Your task to perform on an android device: change keyboard looks Image 0: 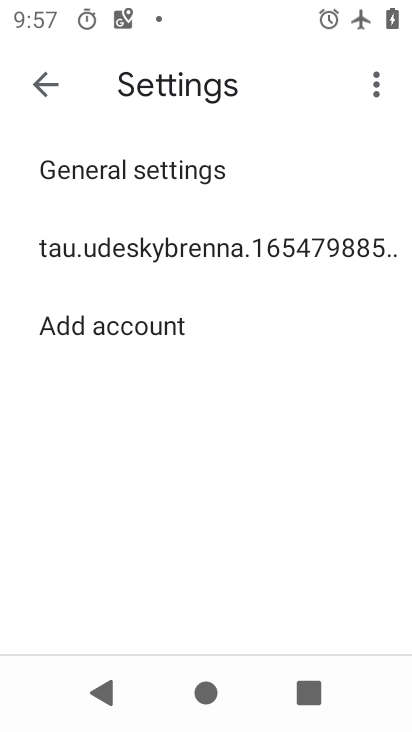
Step 0: press home button
Your task to perform on an android device: change keyboard looks Image 1: 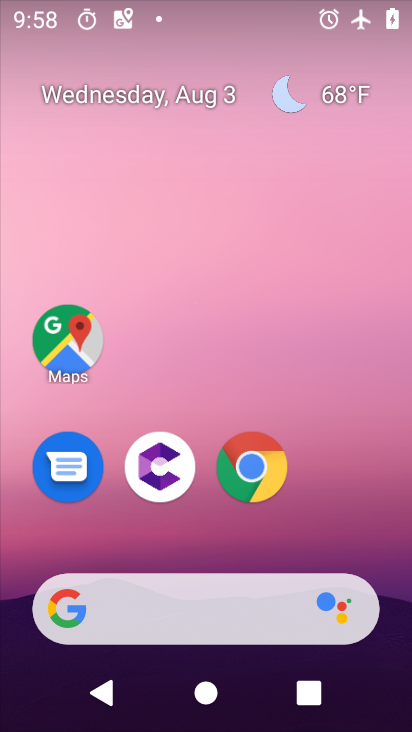
Step 1: drag from (323, 493) to (244, 35)
Your task to perform on an android device: change keyboard looks Image 2: 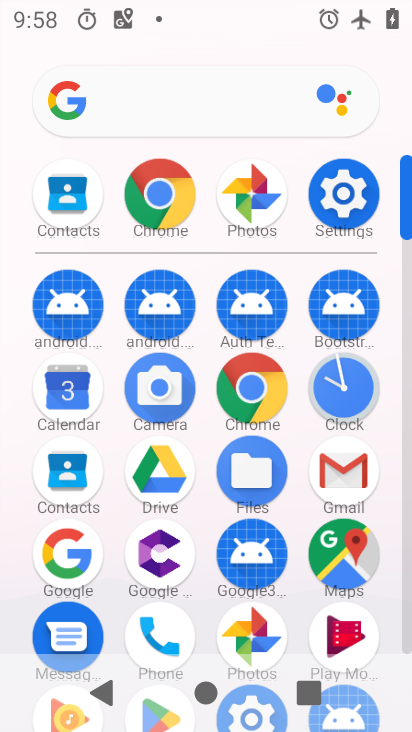
Step 2: click (355, 189)
Your task to perform on an android device: change keyboard looks Image 3: 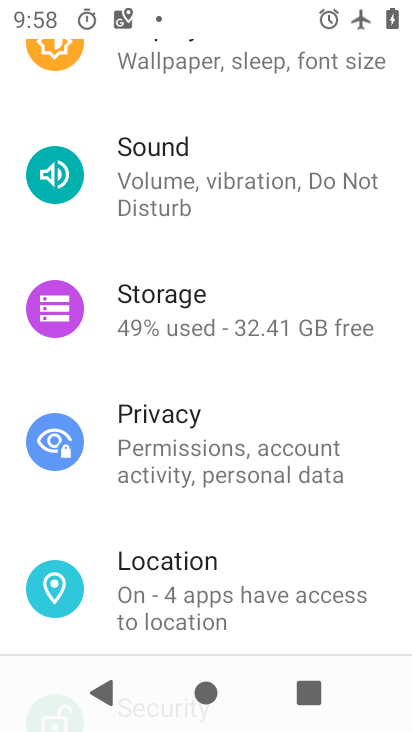
Step 3: drag from (278, 168) to (242, 549)
Your task to perform on an android device: change keyboard looks Image 4: 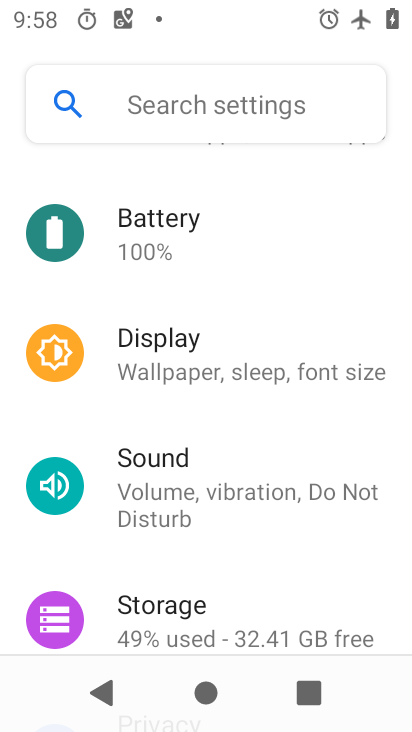
Step 4: drag from (245, 208) to (301, 639)
Your task to perform on an android device: change keyboard looks Image 5: 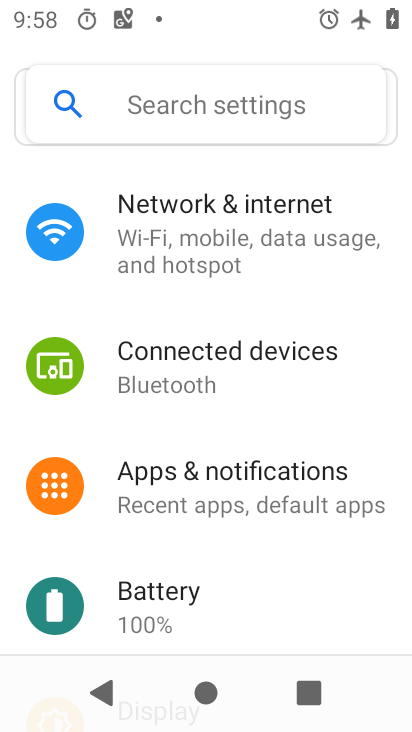
Step 5: drag from (290, 594) to (310, 157)
Your task to perform on an android device: change keyboard looks Image 6: 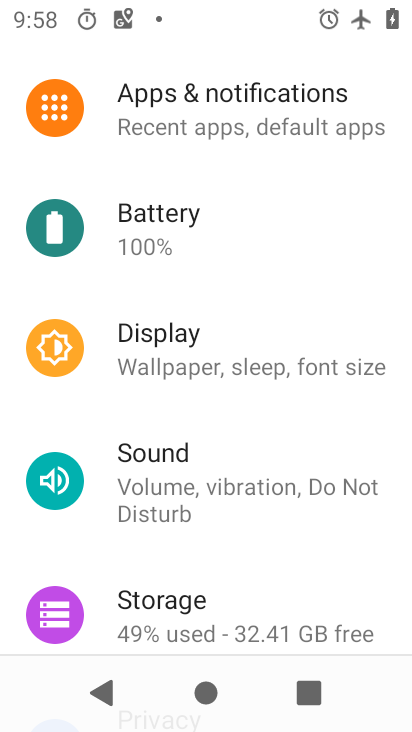
Step 6: drag from (234, 502) to (280, 190)
Your task to perform on an android device: change keyboard looks Image 7: 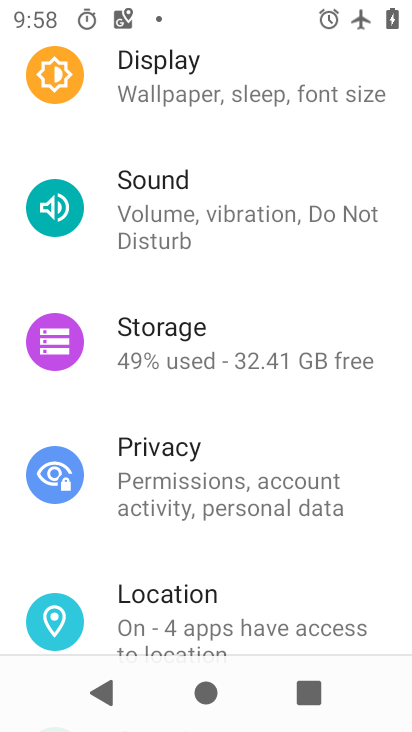
Step 7: drag from (284, 600) to (313, 260)
Your task to perform on an android device: change keyboard looks Image 8: 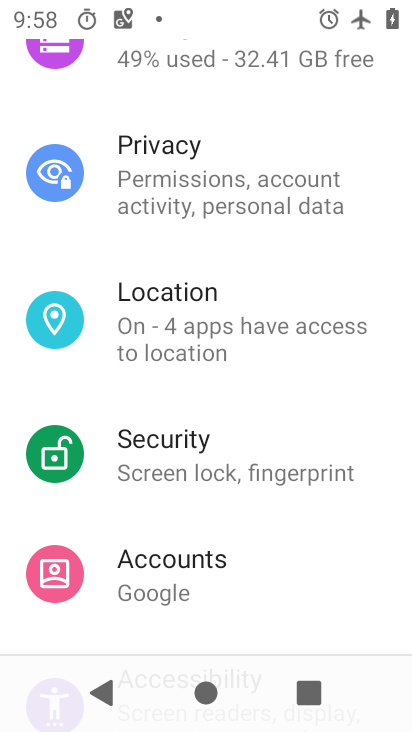
Step 8: drag from (286, 594) to (276, 170)
Your task to perform on an android device: change keyboard looks Image 9: 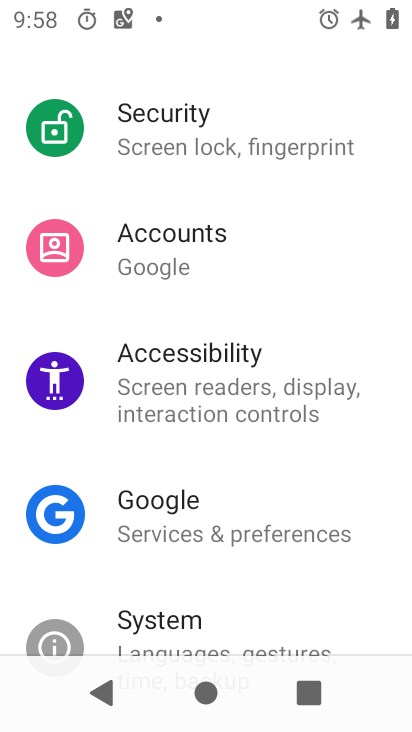
Step 9: drag from (314, 627) to (326, 151)
Your task to perform on an android device: change keyboard looks Image 10: 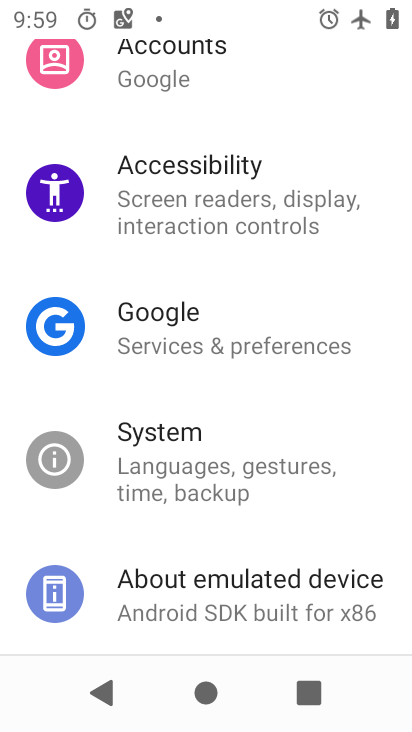
Step 10: click (179, 475)
Your task to perform on an android device: change keyboard looks Image 11: 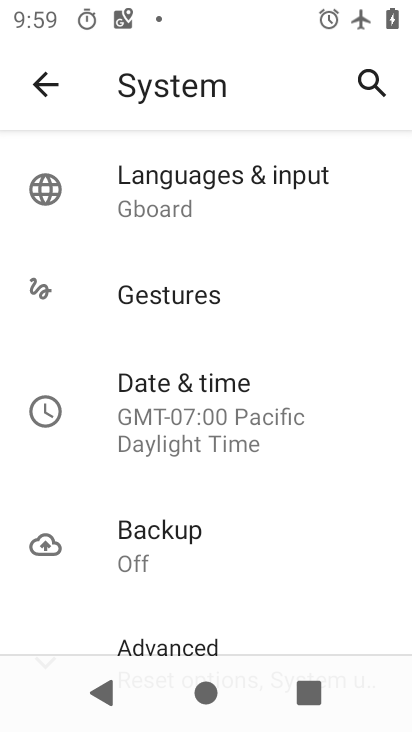
Step 11: click (208, 178)
Your task to perform on an android device: change keyboard looks Image 12: 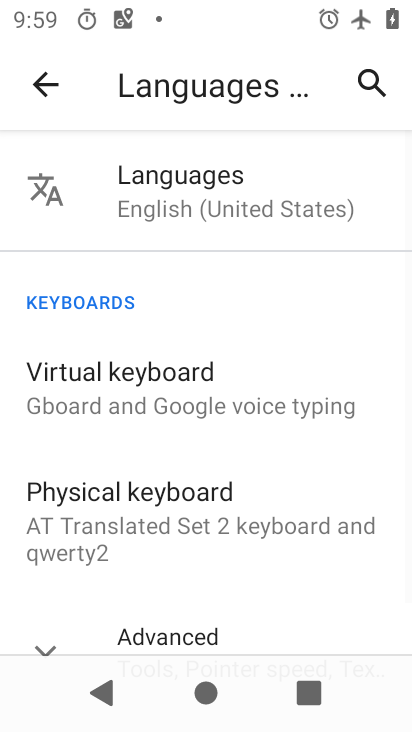
Step 12: click (197, 408)
Your task to perform on an android device: change keyboard looks Image 13: 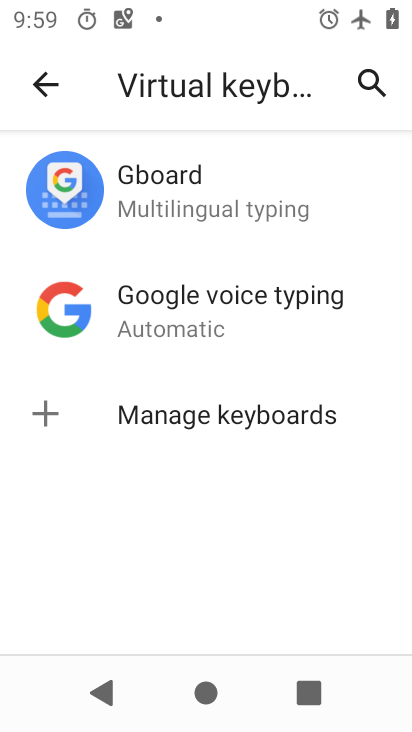
Step 13: click (196, 199)
Your task to perform on an android device: change keyboard looks Image 14: 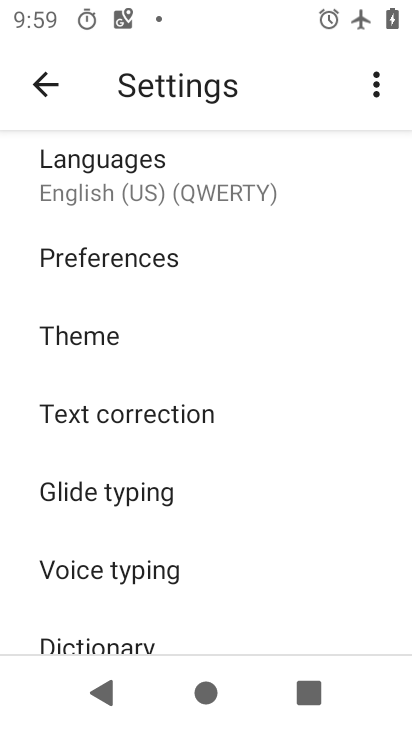
Step 14: click (98, 347)
Your task to perform on an android device: change keyboard looks Image 15: 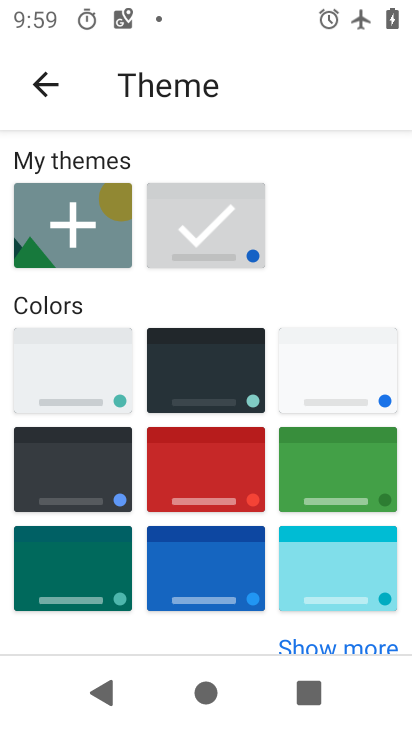
Step 15: click (71, 388)
Your task to perform on an android device: change keyboard looks Image 16: 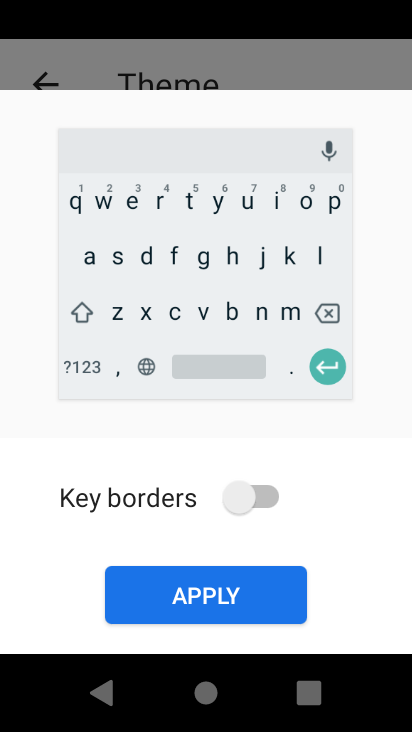
Step 16: click (185, 602)
Your task to perform on an android device: change keyboard looks Image 17: 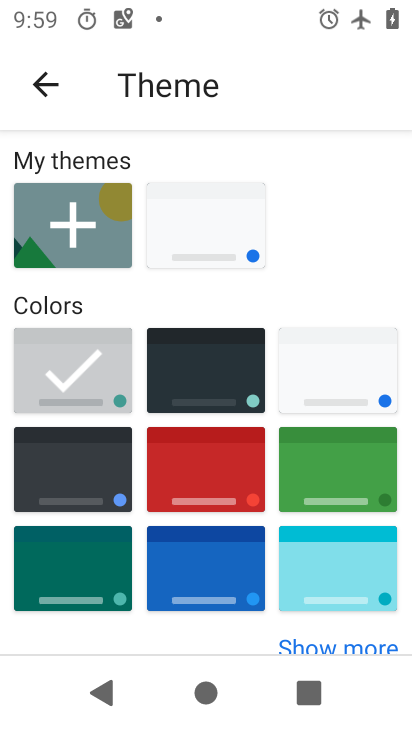
Step 17: task complete